Your task to perform on an android device: Open notification settings Image 0: 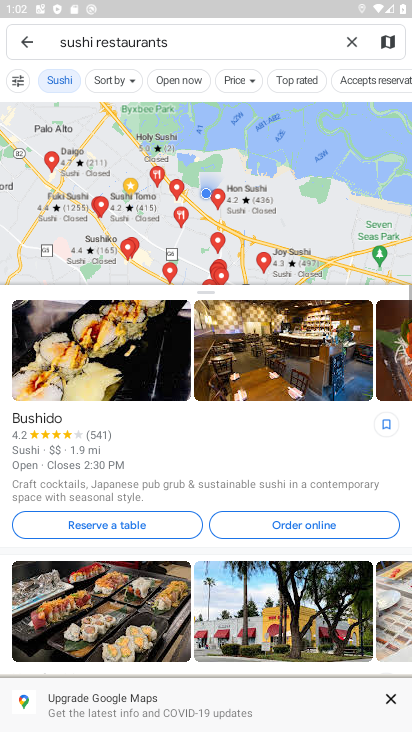
Step 0: click (238, 421)
Your task to perform on an android device: Open notification settings Image 1: 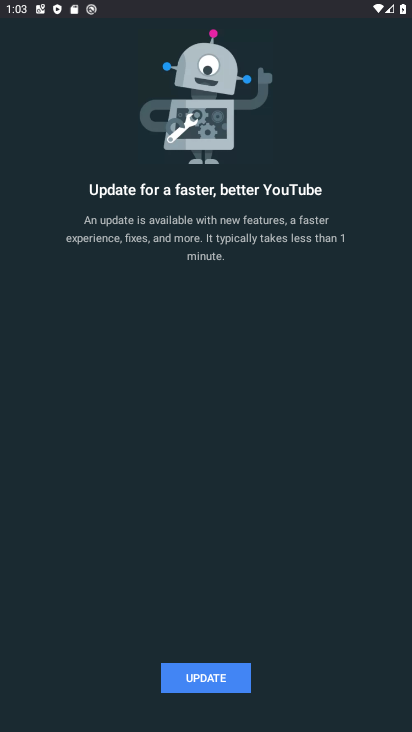
Step 1: press home button
Your task to perform on an android device: Open notification settings Image 2: 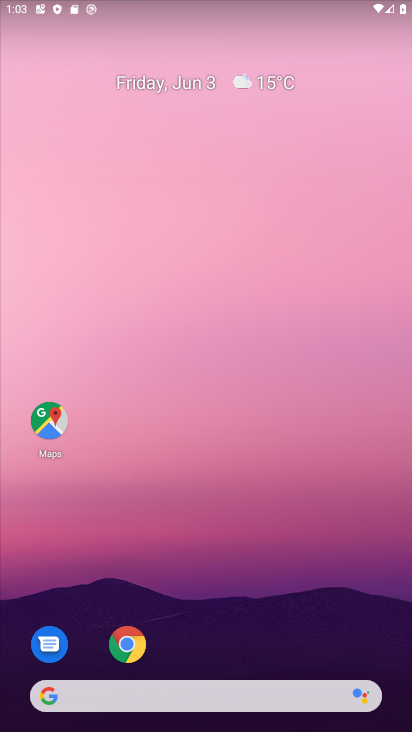
Step 2: drag from (255, 611) to (357, 47)
Your task to perform on an android device: Open notification settings Image 3: 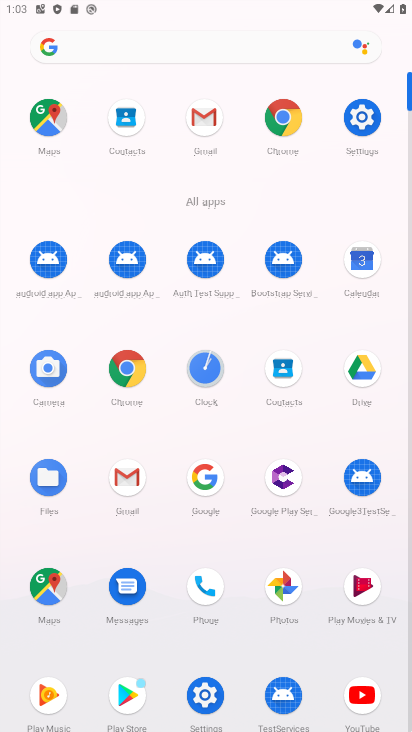
Step 3: click (205, 701)
Your task to perform on an android device: Open notification settings Image 4: 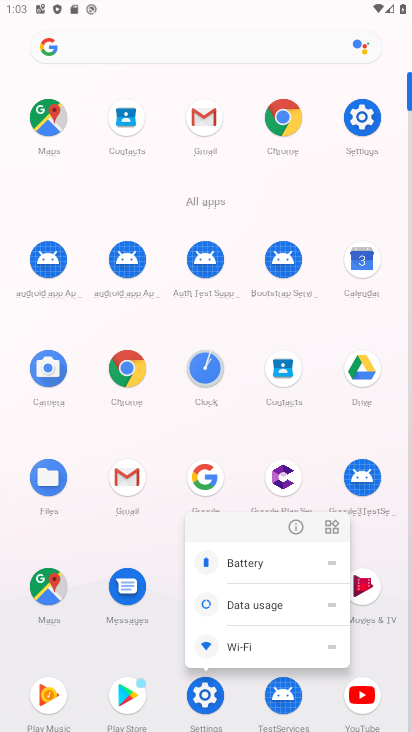
Step 4: click (199, 696)
Your task to perform on an android device: Open notification settings Image 5: 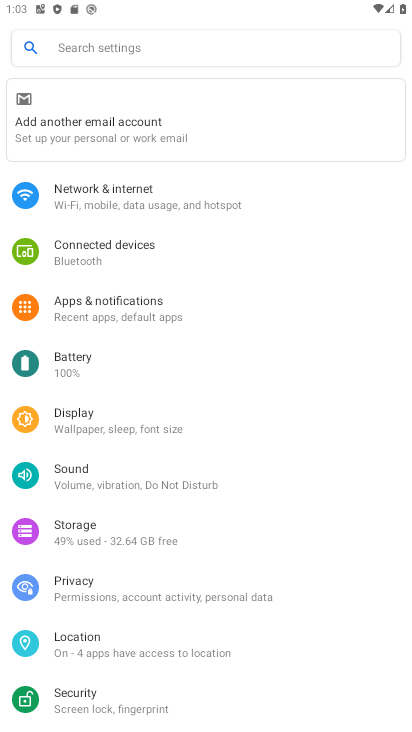
Step 5: click (150, 304)
Your task to perform on an android device: Open notification settings Image 6: 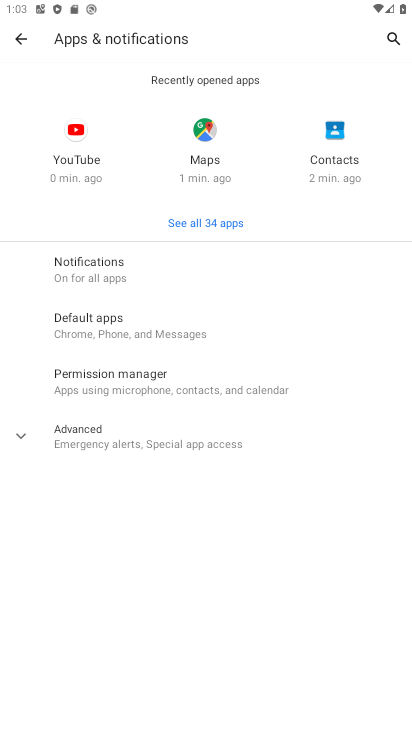
Step 6: click (130, 265)
Your task to perform on an android device: Open notification settings Image 7: 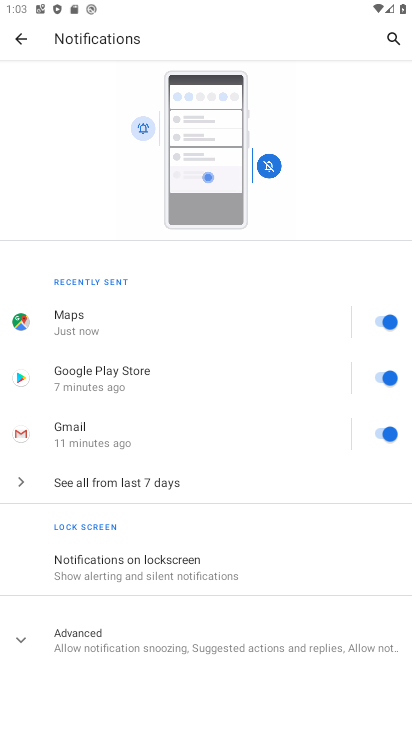
Step 7: task complete